Your task to perform on an android device: toggle notification dots Image 0: 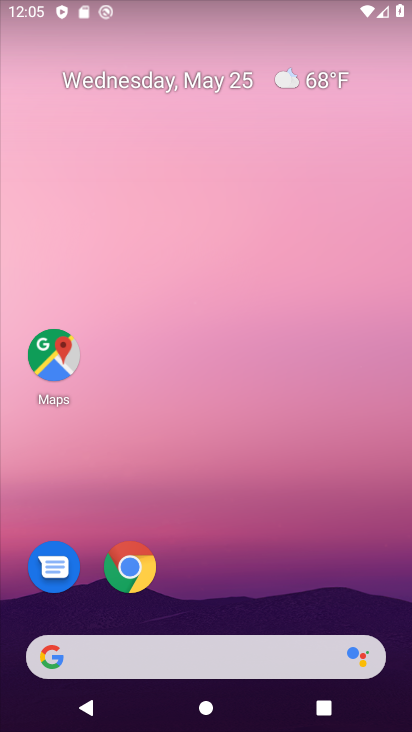
Step 0: drag from (241, 604) to (339, 65)
Your task to perform on an android device: toggle notification dots Image 1: 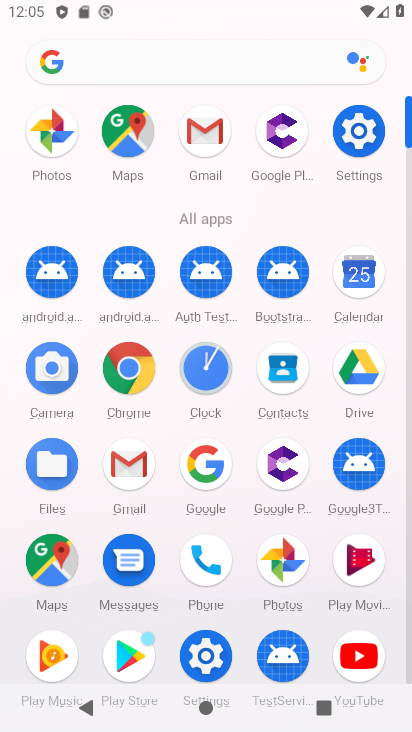
Step 1: drag from (216, 574) to (278, 370)
Your task to perform on an android device: toggle notification dots Image 2: 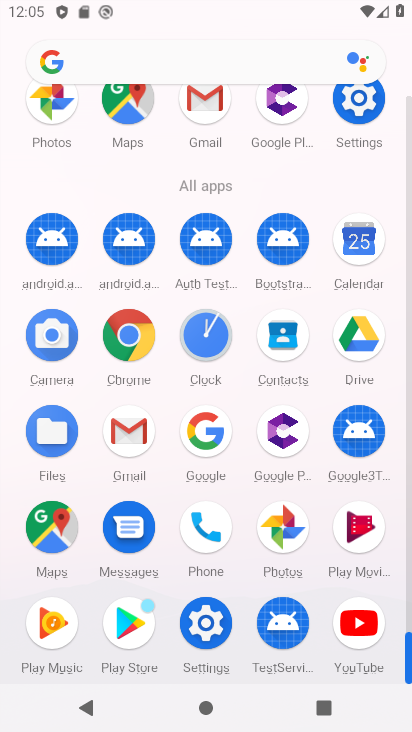
Step 2: click (188, 633)
Your task to perform on an android device: toggle notification dots Image 3: 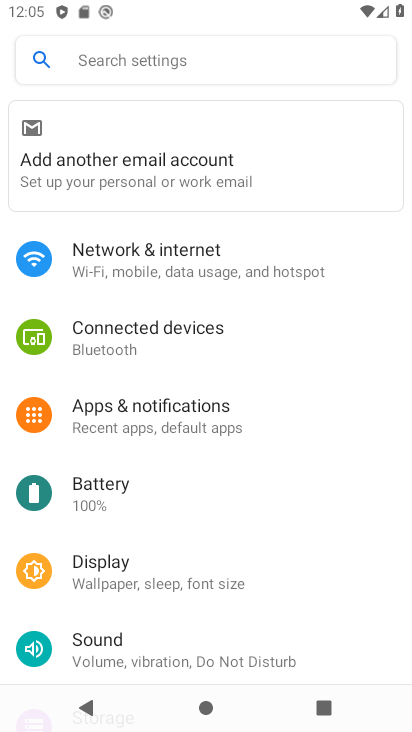
Step 3: drag from (160, 609) to (322, 123)
Your task to perform on an android device: toggle notification dots Image 4: 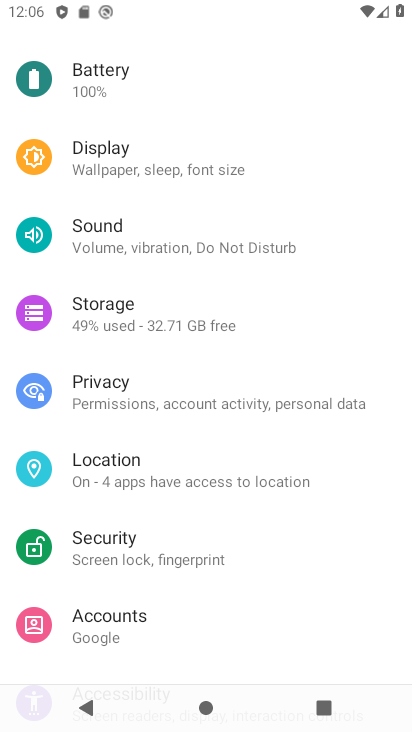
Step 4: drag from (286, 130) to (326, 282)
Your task to perform on an android device: toggle notification dots Image 5: 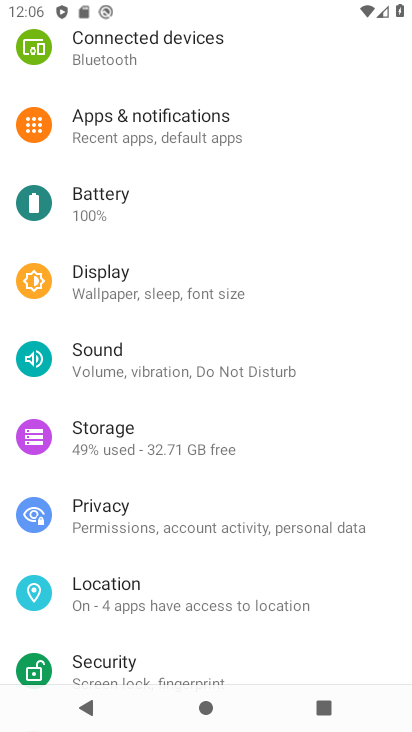
Step 5: click (248, 141)
Your task to perform on an android device: toggle notification dots Image 6: 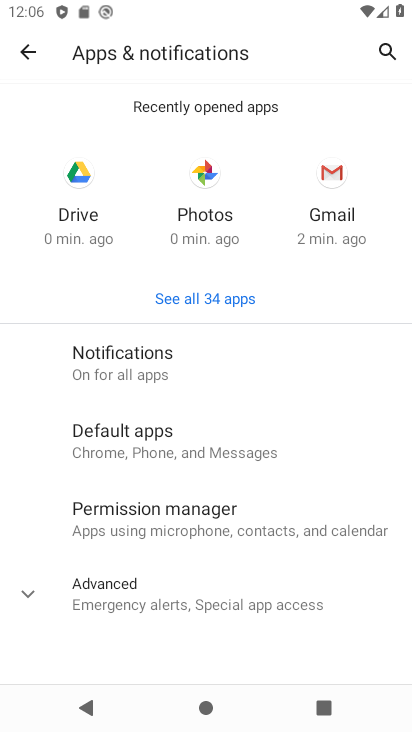
Step 6: click (196, 365)
Your task to perform on an android device: toggle notification dots Image 7: 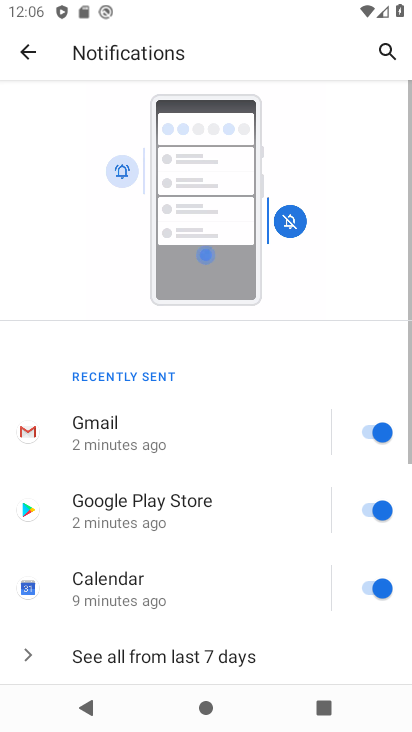
Step 7: drag from (152, 579) to (279, 186)
Your task to perform on an android device: toggle notification dots Image 8: 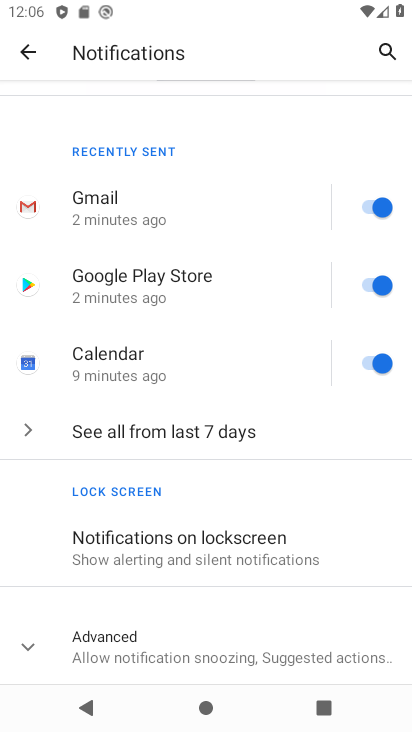
Step 8: click (157, 632)
Your task to perform on an android device: toggle notification dots Image 9: 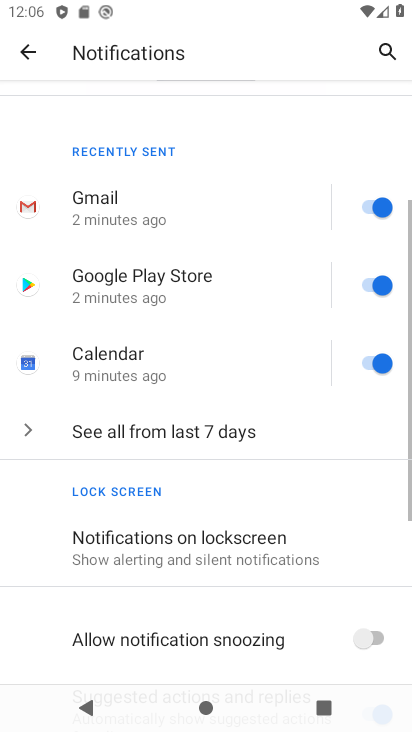
Step 9: drag from (196, 505) to (266, 309)
Your task to perform on an android device: toggle notification dots Image 10: 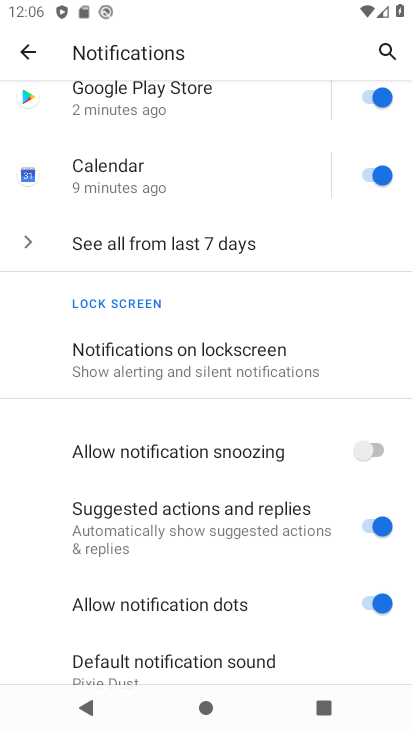
Step 10: click (357, 606)
Your task to perform on an android device: toggle notification dots Image 11: 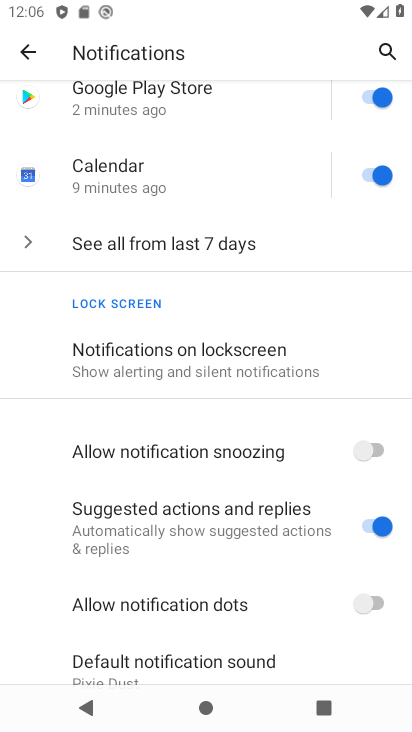
Step 11: task complete